Your task to perform on an android device: change notification settings in the gmail app Image 0: 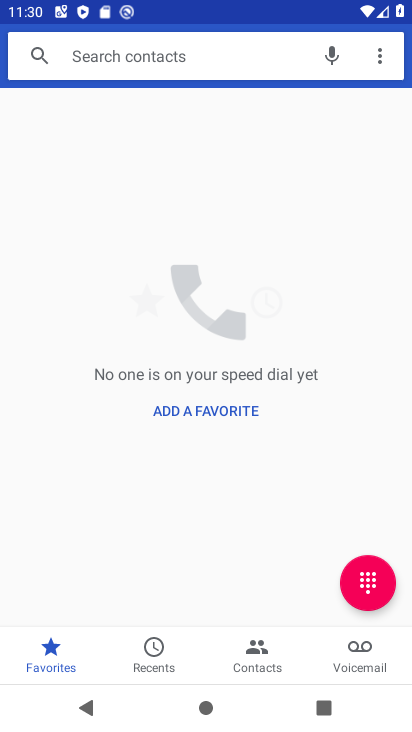
Step 0: press home button
Your task to perform on an android device: change notification settings in the gmail app Image 1: 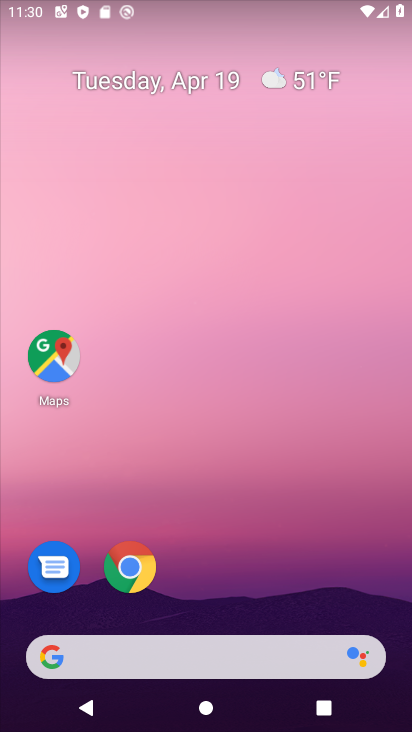
Step 1: drag from (204, 581) to (272, 1)
Your task to perform on an android device: change notification settings in the gmail app Image 2: 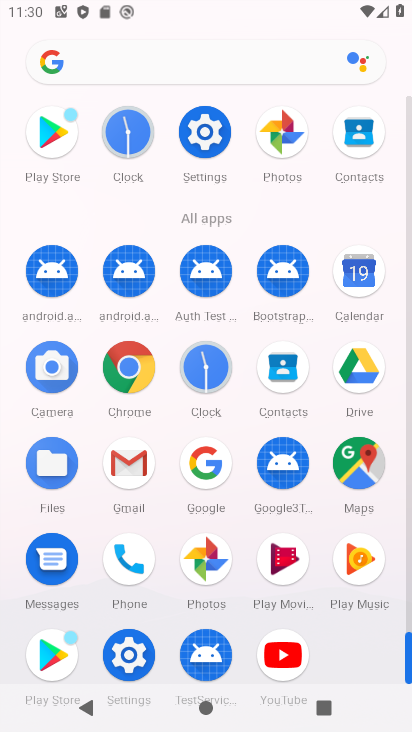
Step 2: click (133, 464)
Your task to perform on an android device: change notification settings in the gmail app Image 3: 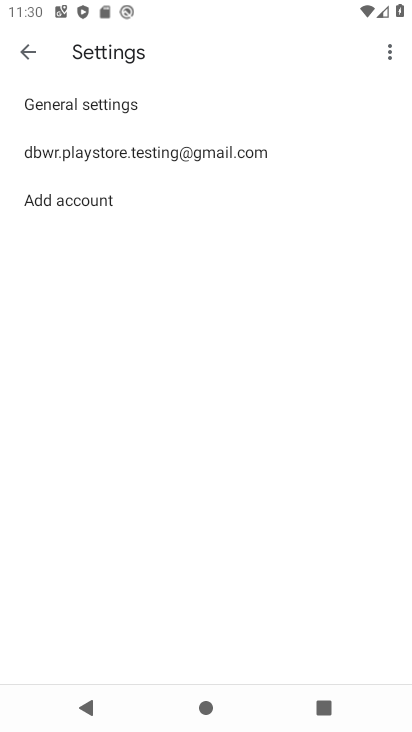
Step 3: click (91, 96)
Your task to perform on an android device: change notification settings in the gmail app Image 4: 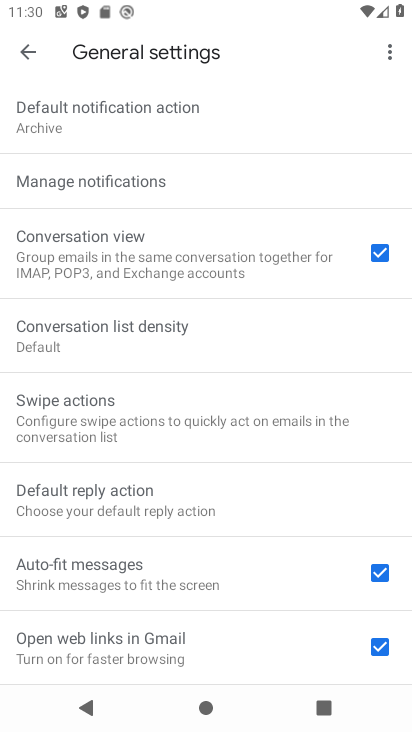
Step 4: click (82, 178)
Your task to perform on an android device: change notification settings in the gmail app Image 5: 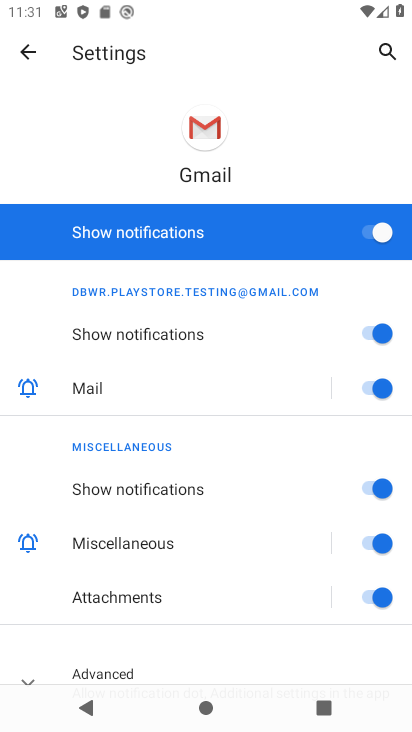
Step 5: click (366, 230)
Your task to perform on an android device: change notification settings in the gmail app Image 6: 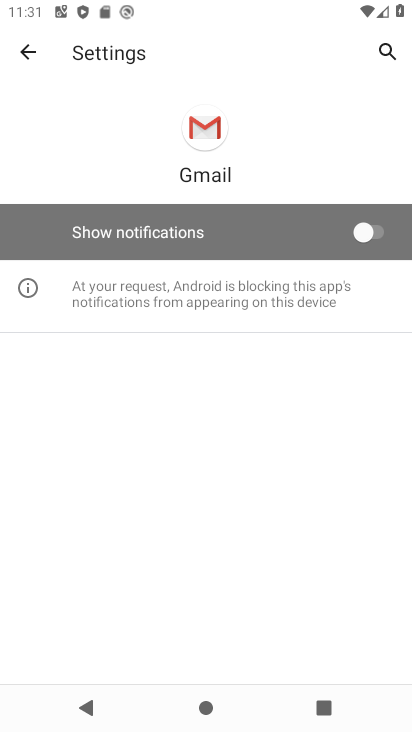
Step 6: task complete